Your task to perform on an android device: Show me popular videos on Youtube Image 0: 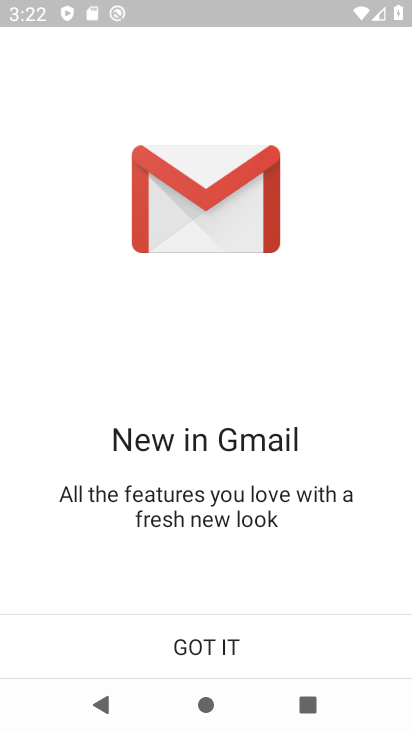
Step 0: press back button
Your task to perform on an android device: Show me popular videos on Youtube Image 1: 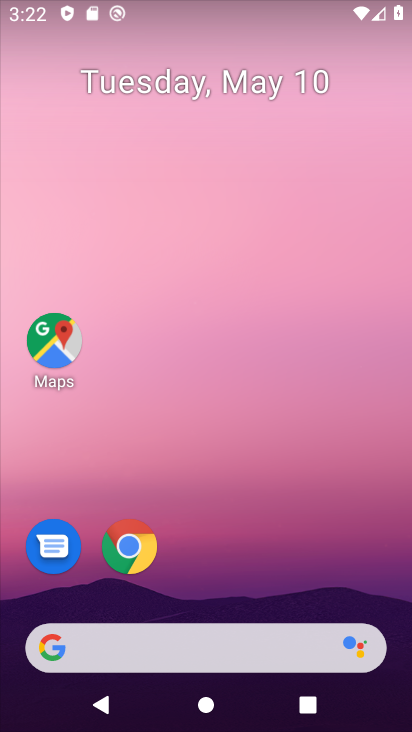
Step 1: drag from (209, 613) to (322, 64)
Your task to perform on an android device: Show me popular videos on Youtube Image 2: 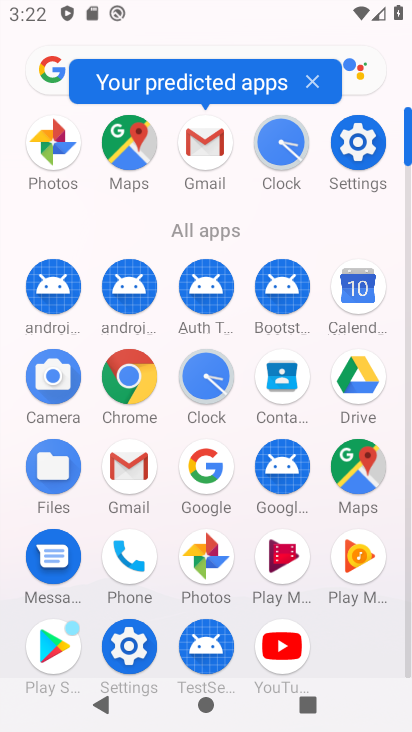
Step 2: click (273, 652)
Your task to perform on an android device: Show me popular videos on Youtube Image 3: 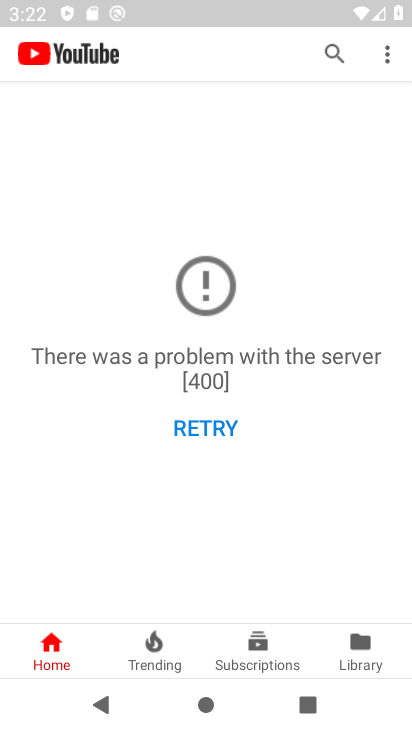
Step 3: click (368, 658)
Your task to perform on an android device: Show me popular videos on Youtube Image 4: 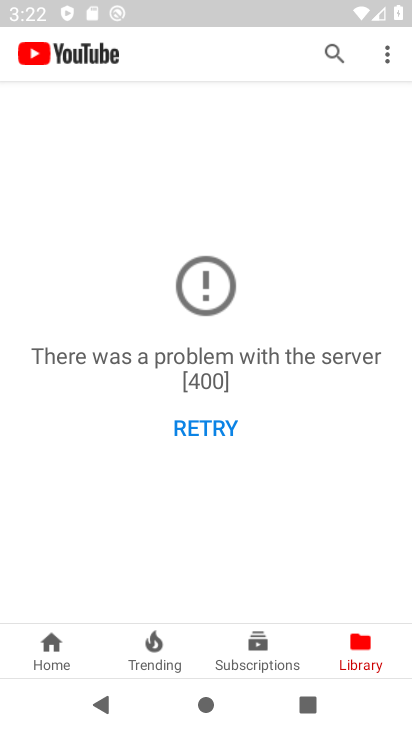
Step 4: click (159, 647)
Your task to perform on an android device: Show me popular videos on Youtube Image 5: 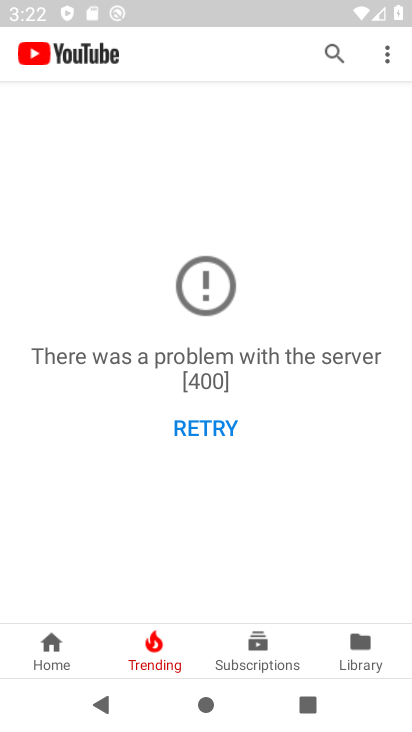
Step 5: task complete